Your task to perform on an android device: Go to eBay Image 0: 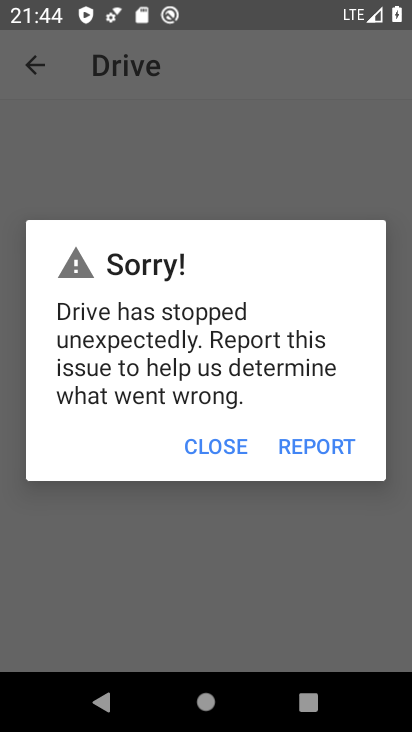
Step 0: click (222, 446)
Your task to perform on an android device: Go to eBay Image 1: 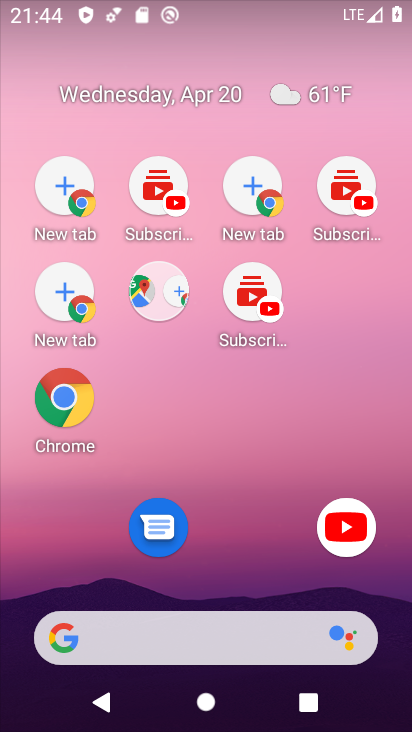
Step 1: drag from (192, 371) to (139, 184)
Your task to perform on an android device: Go to eBay Image 2: 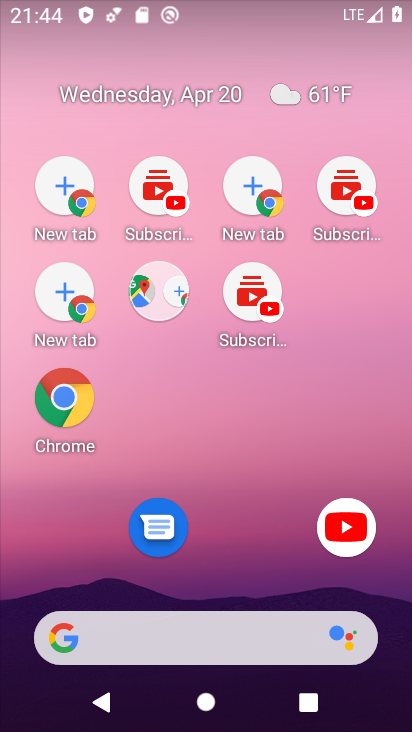
Step 2: drag from (261, 558) to (143, 249)
Your task to perform on an android device: Go to eBay Image 3: 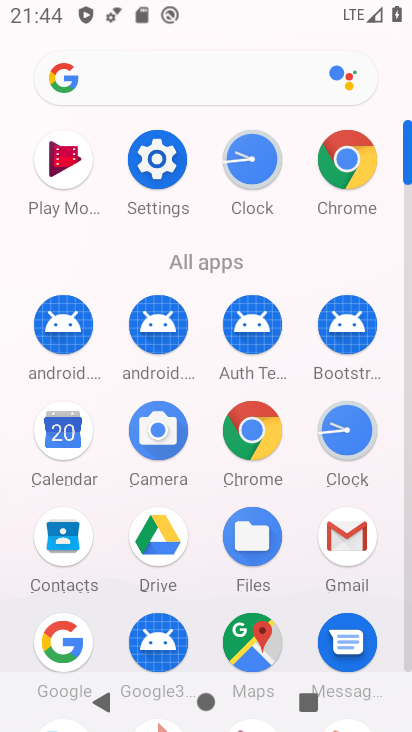
Step 3: click (337, 161)
Your task to perform on an android device: Go to eBay Image 4: 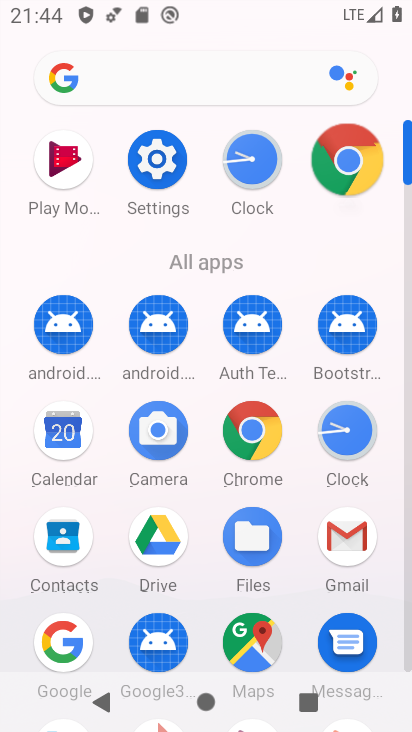
Step 4: click (337, 161)
Your task to perform on an android device: Go to eBay Image 5: 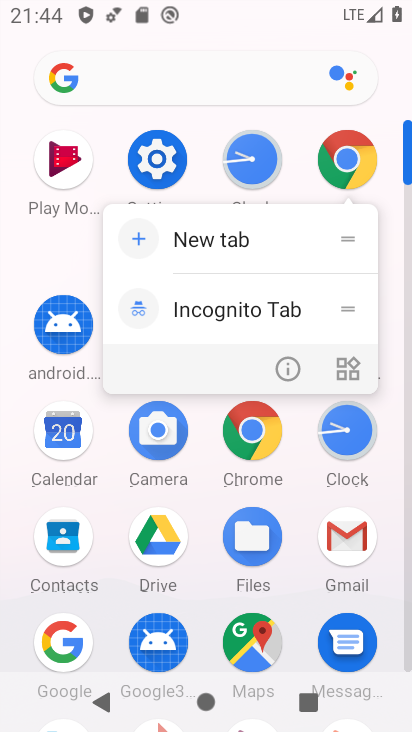
Step 5: click (337, 161)
Your task to perform on an android device: Go to eBay Image 6: 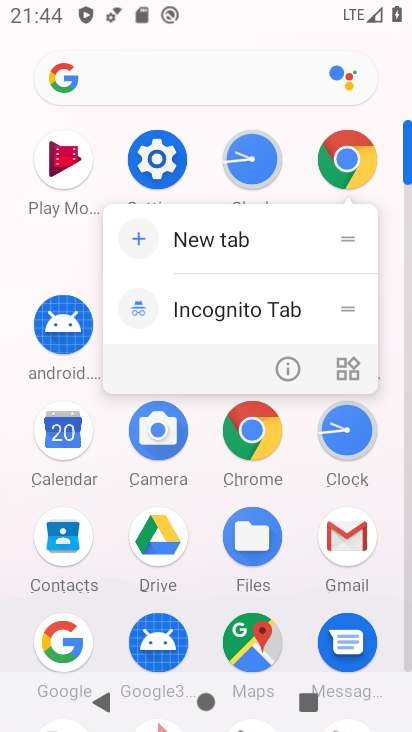
Step 6: click (344, 155)
Your task to perform on an android device: Go to eBay Image 7: 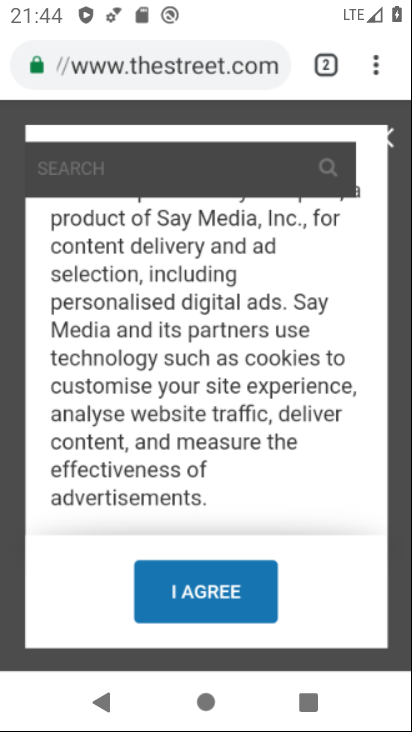
Step 7: click (344, 155)
Your task to perform on an android device: Go to eBay Image 8: 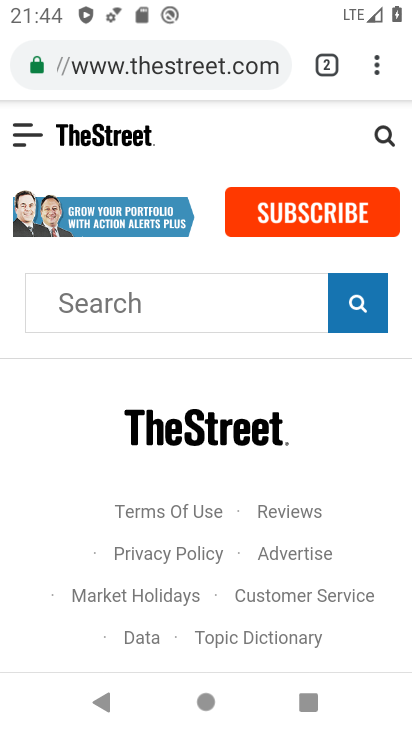
Step 8: press home button
Your task to perform on an android device: Go to eBay Image 9: 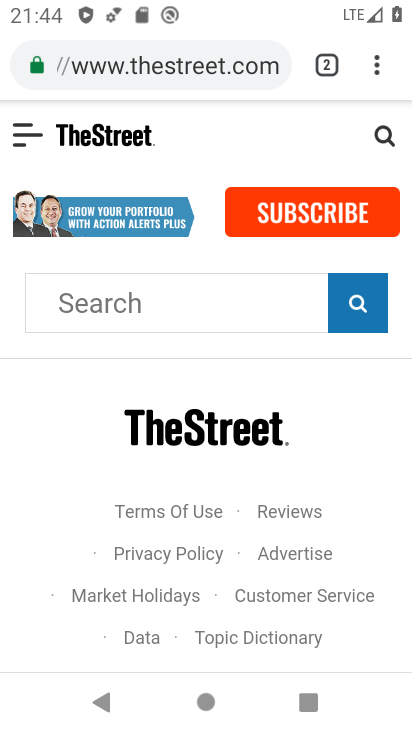
Step 9: press home button
Your task to perform on an android device: Go to eBay Image 10: 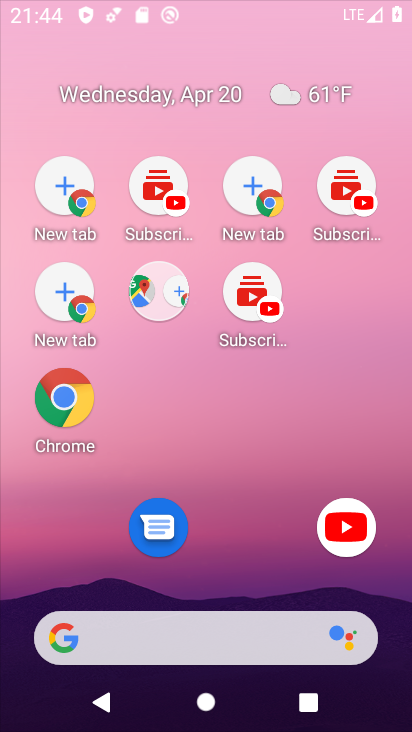
Step 10: press home button
Your task to perform on an android device: Go to eBay Image 11: 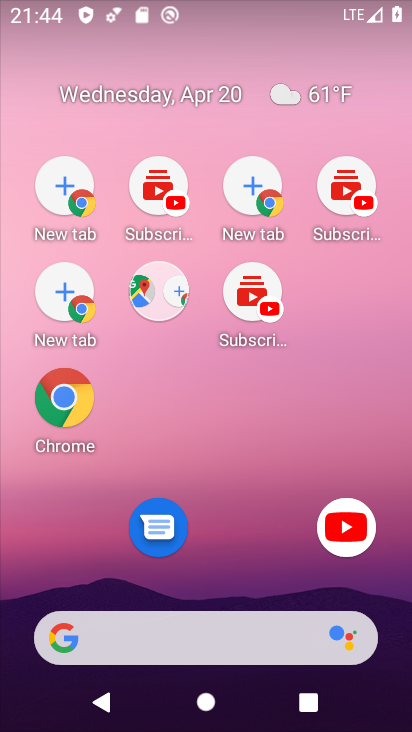
Step 11: drag from (234, 668) to (181, 107)
Your task to perform on an android device: Go to eBay Image 12: 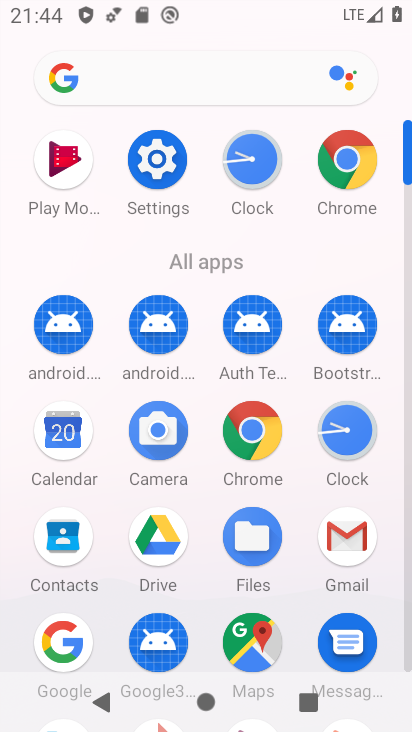
Step 12: click (359, 163)
Your task to perform on an android device: Go to eBay Image 13: 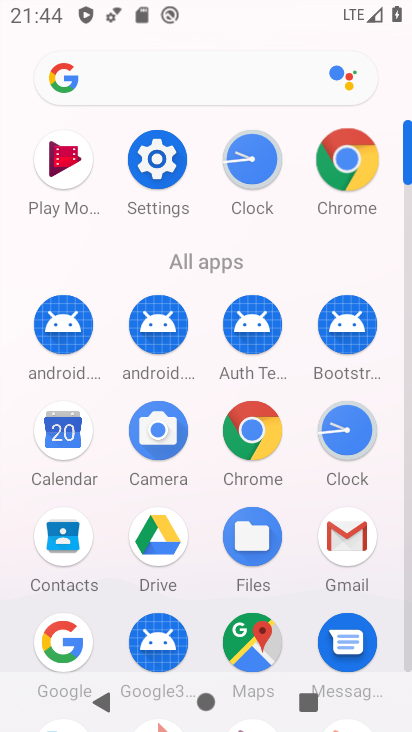
Step 13: click (359, 163)
Your task to perform on an android device: Go to eBay Image 14: 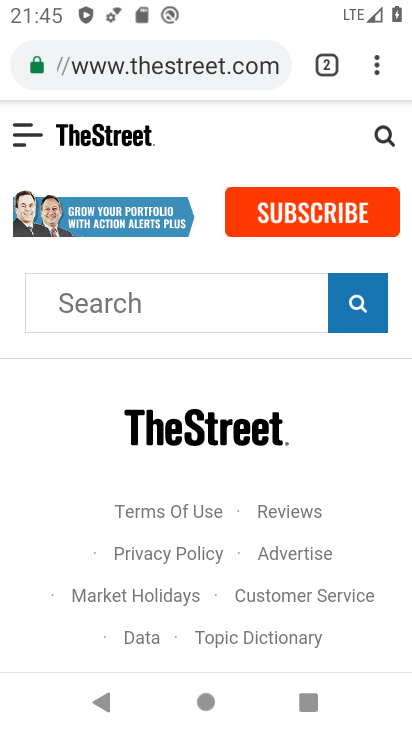
Step 14: click (382, 73)
Your task to perform on an android device: Go to eBay Image 15: 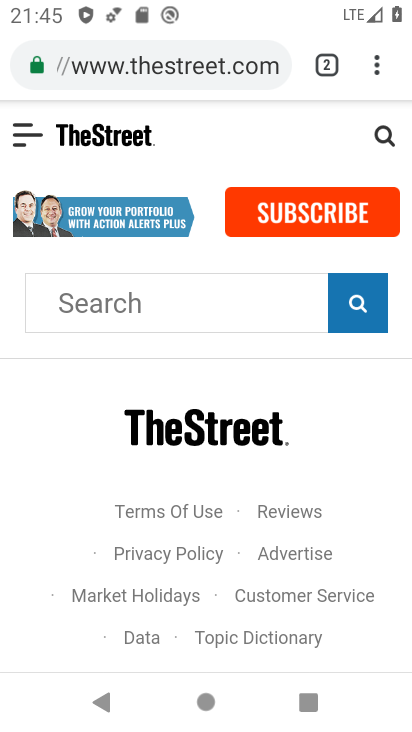
Step 15: click (376, 67)
Your task to perform on an android device: Go to eBay Image 16: 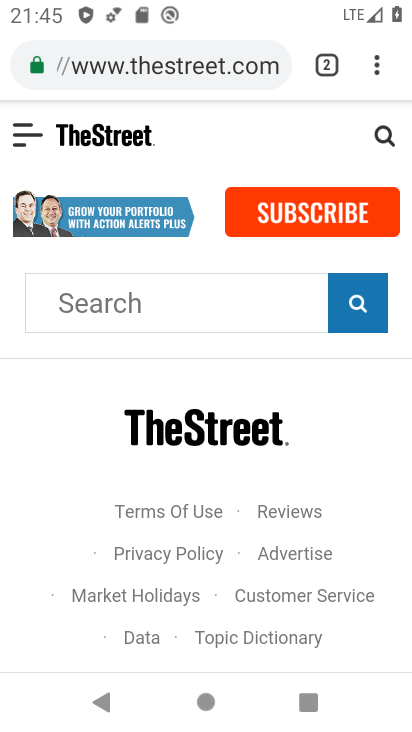
Step 16: drag from (377, 68) to (154, 577)
Your task to perform on an android device: Go to eBay Image 17: 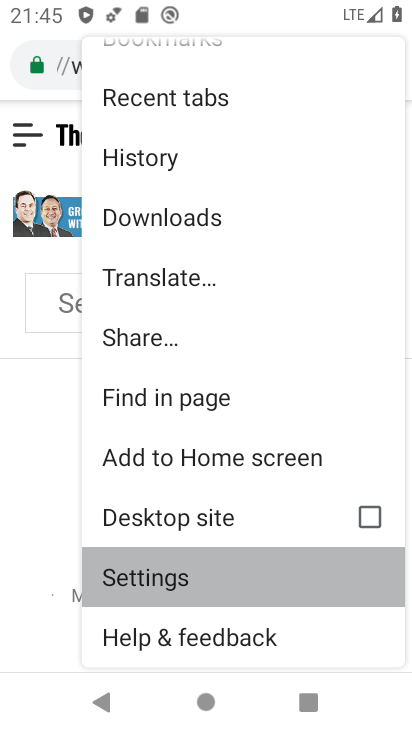
Step 17: click (156, 567)
Your task to perform on an android device: Go to eBay Image 18: 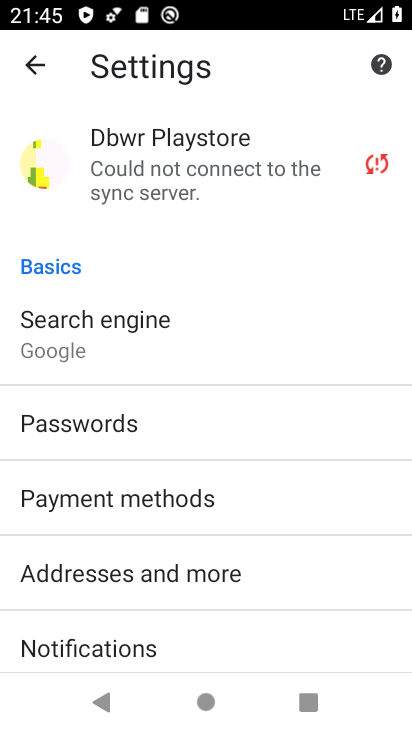
Step 18: click (24, 66)
Your task to perform on an android device: Go to eBay Image 19: 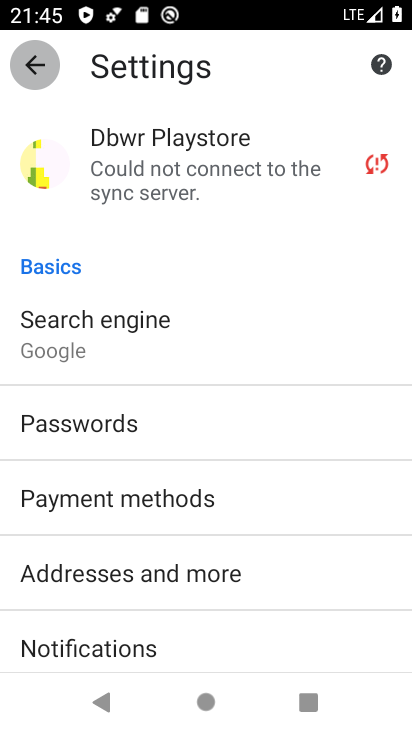
Step 19: click (34, 59)
Your task to perform on an android device: Go to eBay Image 20: 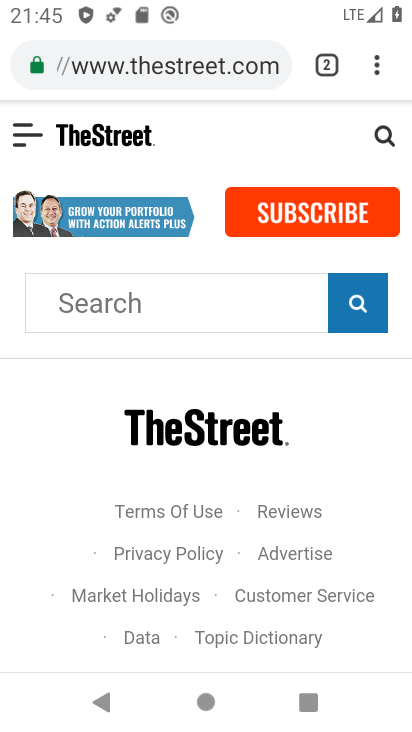
Step 20: click (374, 63)
Your task to perform on an android device: Go to eBay Image 21: 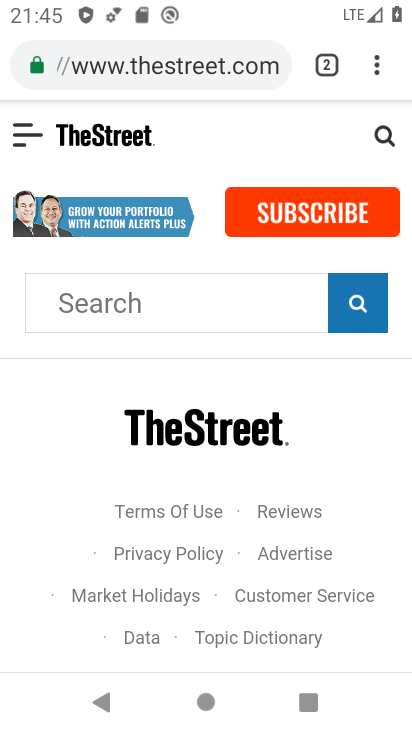
Step 21: drag from (370, 62) to (116, 122)
Your task to perform on an android device: Go to eBay Image 22: 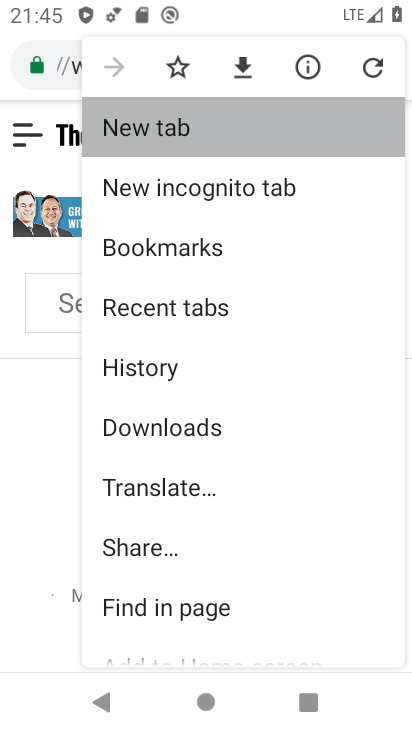
Step 22: click (124, 118)
Your task to perform on an android device: Go to eBay Image 23: 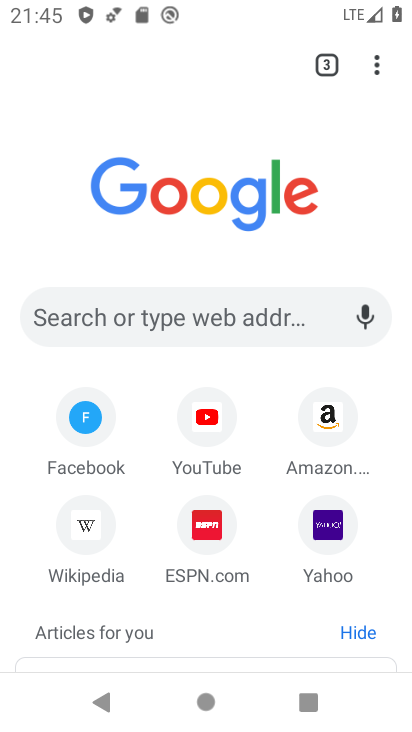
Step 23: click (72, 312)
Your task to perform on an android device: Go to eBay Image 24: 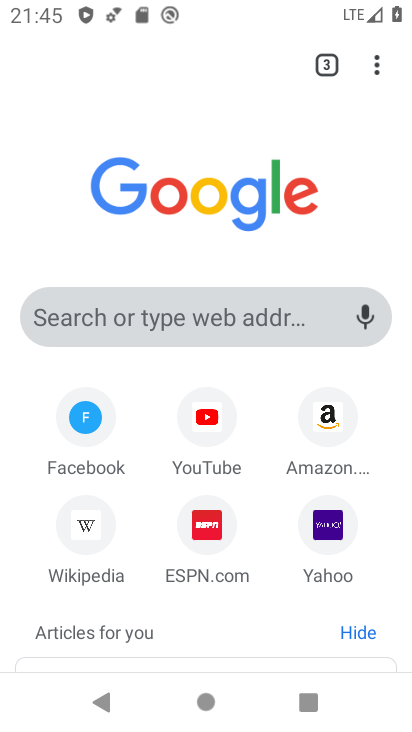
Step 24: click (72, 312)
Your task to perform on an android device: Go to eBay Image 25: 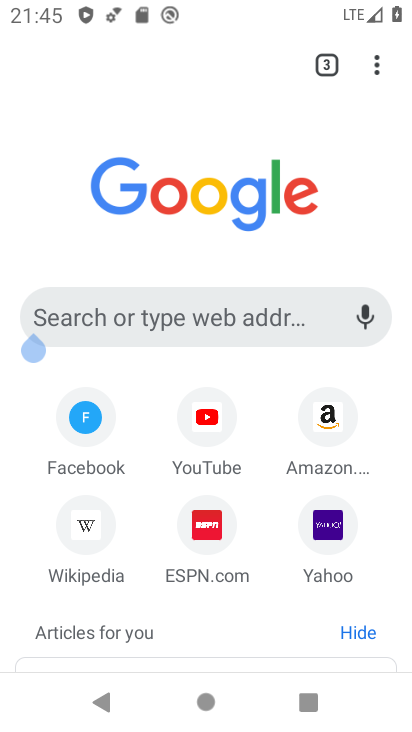
Step 25: click (72, 311)
Your task to perform on an android device: Go to eBay Image 26: 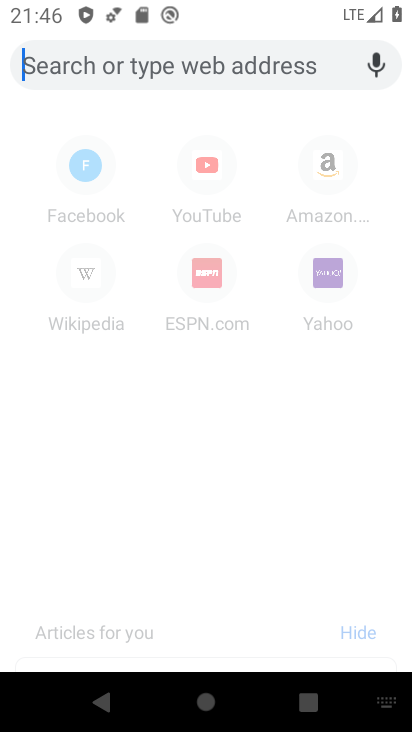
Step 26: type "www.ebay.com"
Your task to perform on an android device: Go to eBay Image 27: 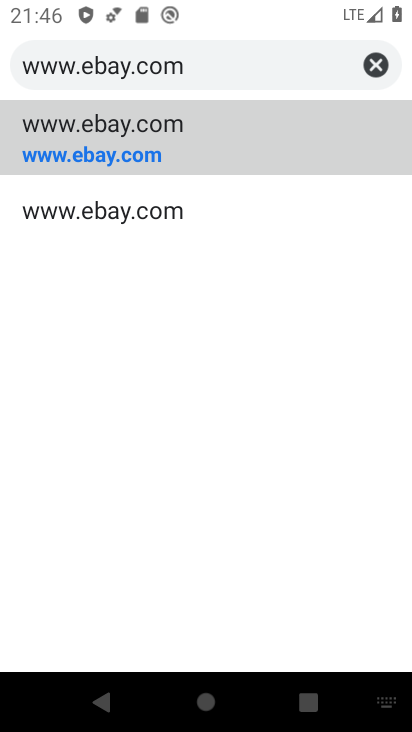
Step 27: click (89, 142)
Your task to perform on an android device: Go to eBay Image 28: 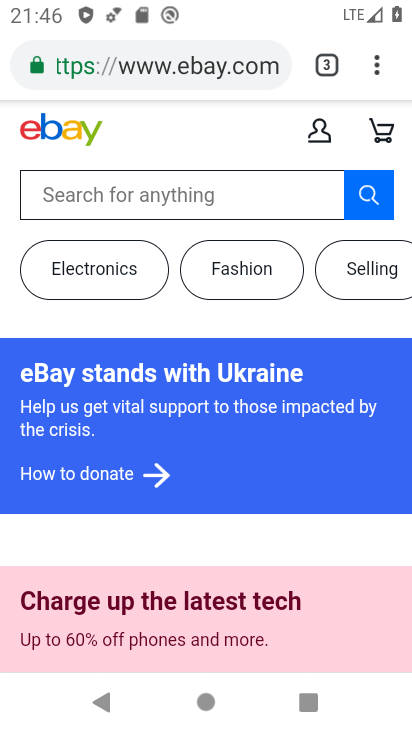
Step 28: task complete